Your task to perform on an android device: set default search engine in the chrome app Image 0: 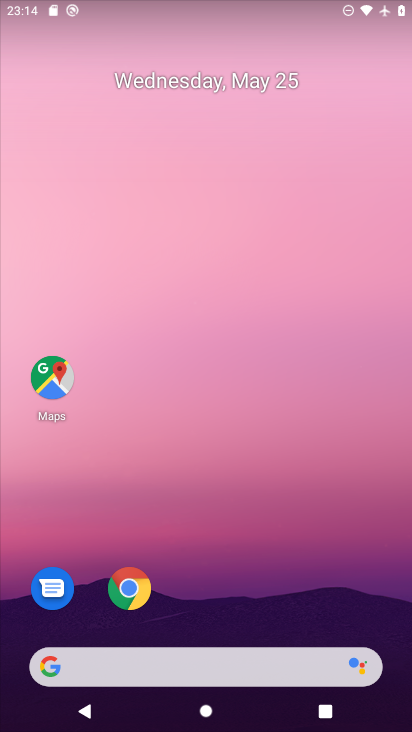
Step 0: click (131, 593)
Your task to perform on an android device: set default search engine in the chrome app Image 1: 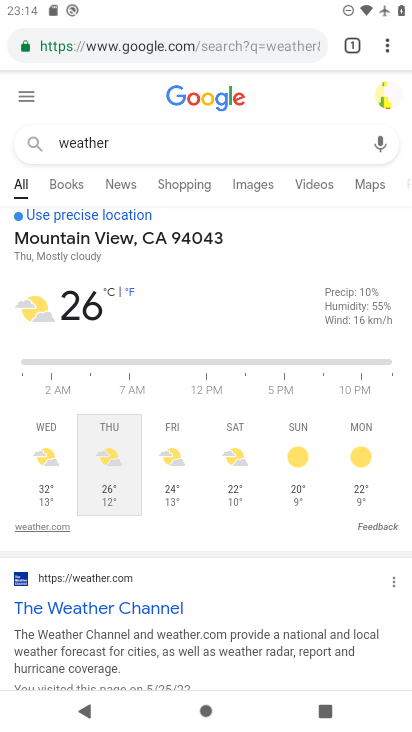
Step 1: click (383, 53)
Your task to perform on an android device: set default search engine in the chrome app Image 2: 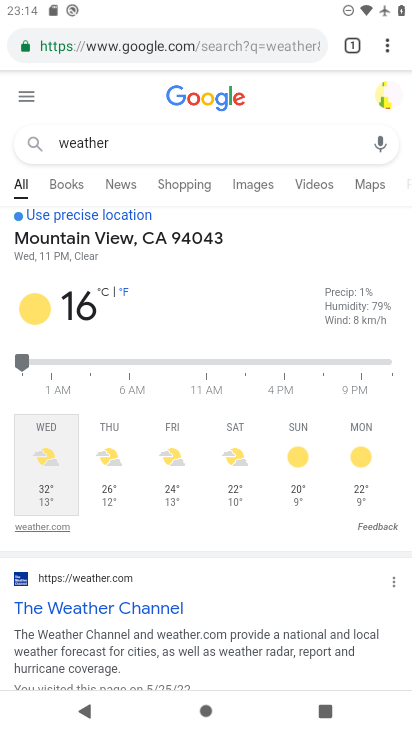
Step 2: drag from (393, 40) to (265, 508)
Your task to perform on an android device: set default search engine in the chrome app Image 3: 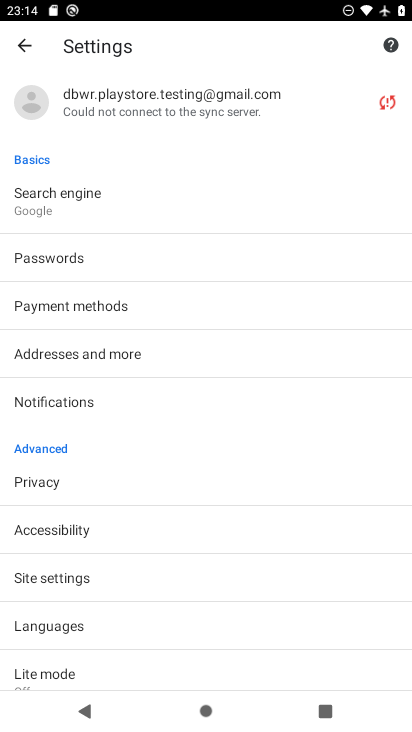
Step 3: click (159, 209)
Your task to perform on an android device: set default search engine in the chrome app Image 4: 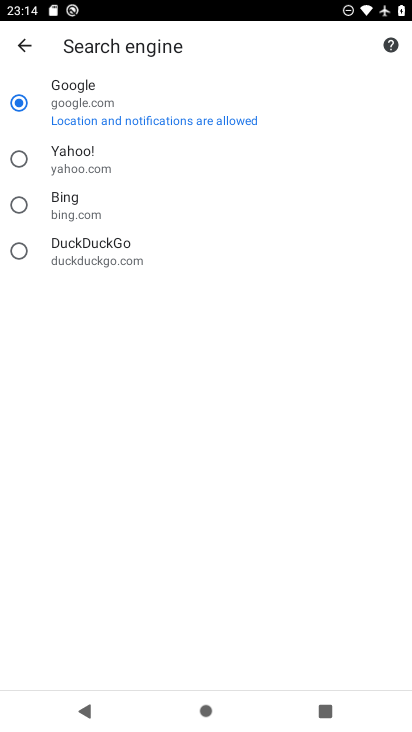
Step 4: task complete